Your task to perform on an android device: Go to Yahoo.com Image 0: 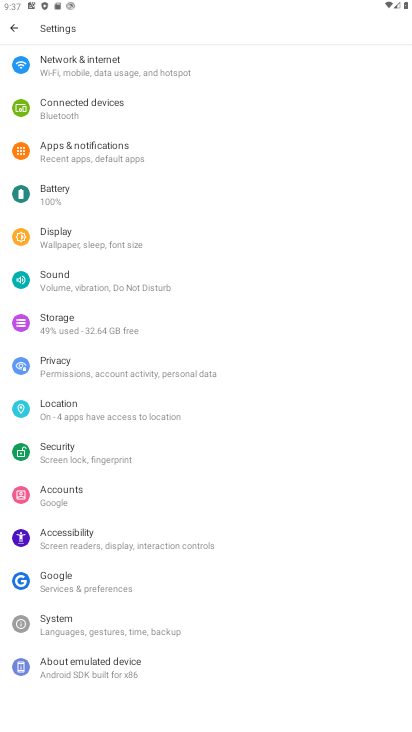
Step 0: press home button
Your task to perform on an android device: Go to Yahoo.com Image 1: 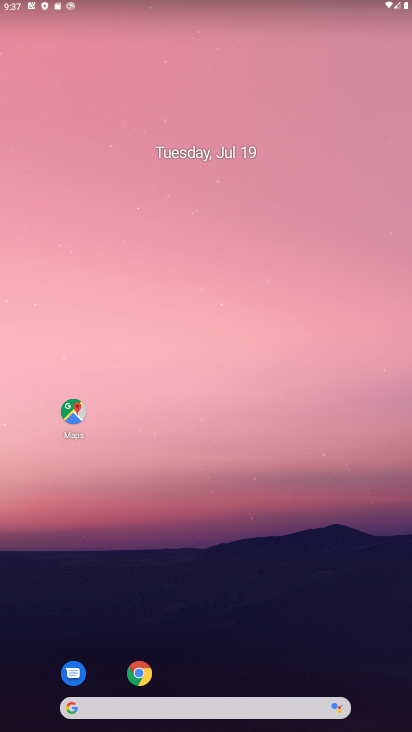
Step 1: click (141, 664)
Your task to perform on an android device: Go to Yahoo.com Image 2: 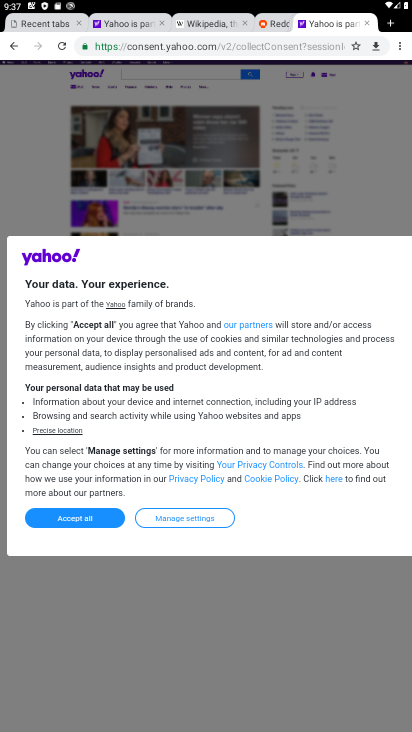
Step 2: click (323, 24)
Your task to perform on an android device: Go to Yahoo.com Image 3: 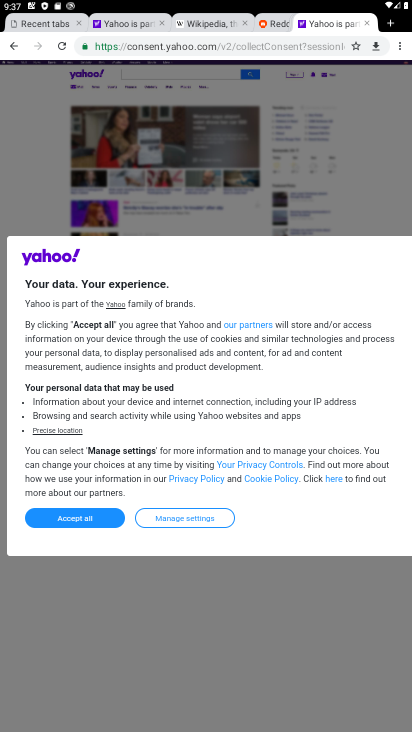
Step 3: task complete